Your task to perform on an android device: open sync settings in chrome Image 0: 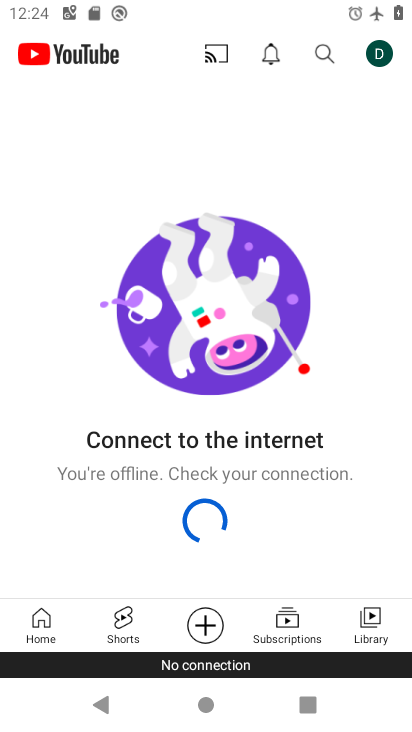
Step 0: press home button
Your task to perform on an android device: open sync settings in chrome Image 1: 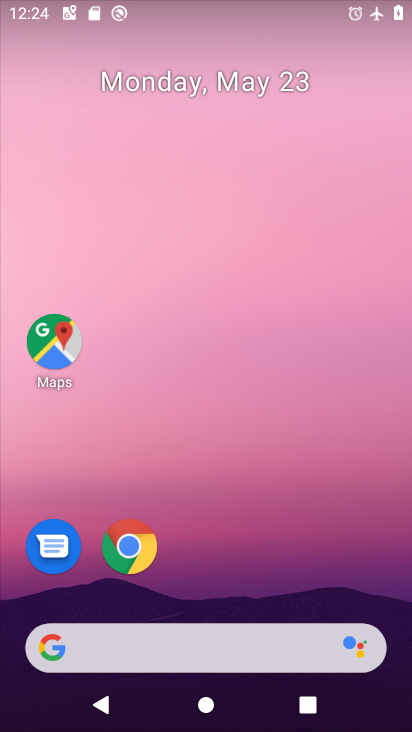
Step 1: drag from (256, 623) to (339, 158)
Your task to perform on an android device: open sync settings in chrome Image 2: 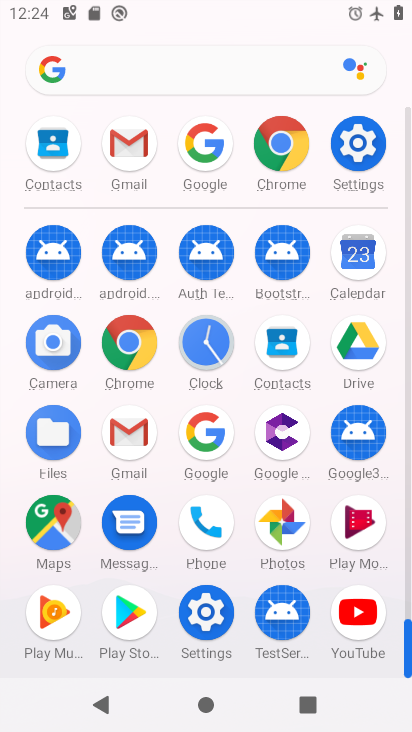
Step 2: click (283, 158)
Your task to perform on an android device: open sync settings in chrome Image 3: 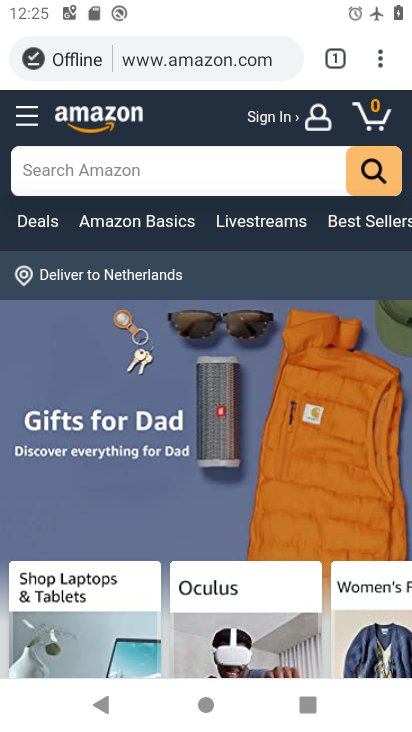
Step 3: click (386, 58)
Your task to perform on an android device: open sync settings in chrome Image 4: 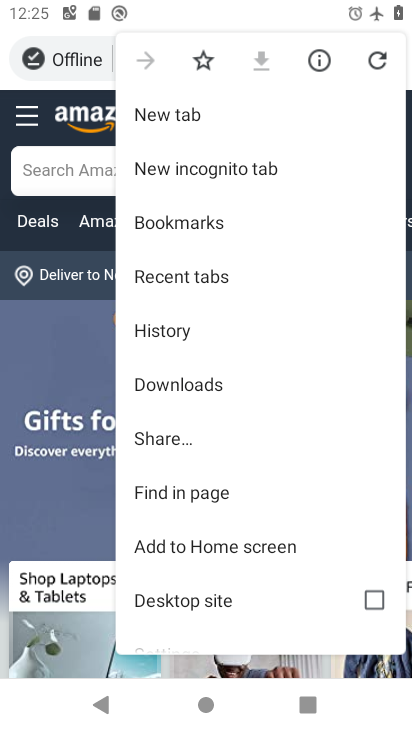
Step 4: drag from (209, 558) to (262, 179)
Your task to perform on an android device: open sync settings in chrome Image 5: 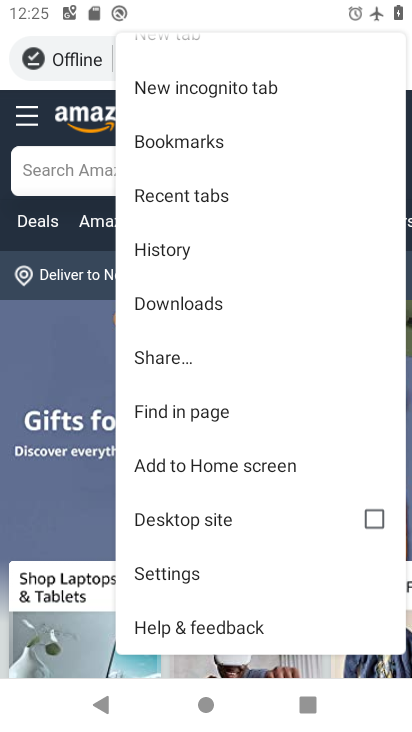
Step 5: click (203, 570)
Your task to perform on an android device: open sync settings in chrome Image 6: 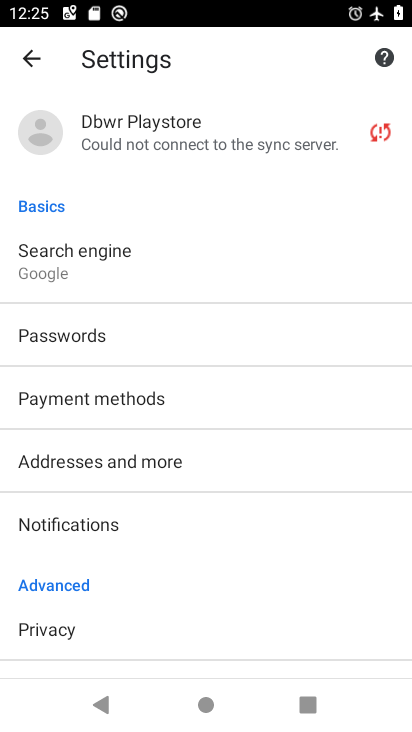
Step 6: drag from (190, 600) to (253, 344)
Your task to perform on an android device: open sync settings in chrome Image 7: 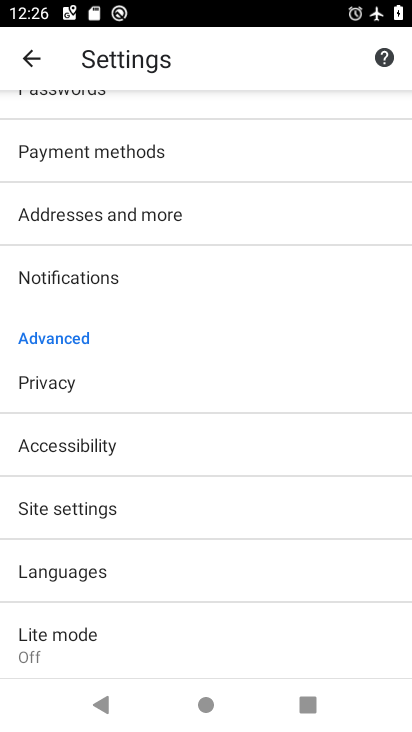
Step 7: drag from (281, 310) to (143, 701)
Your task to perform on an android device: open sync settings in chrome Image 8: 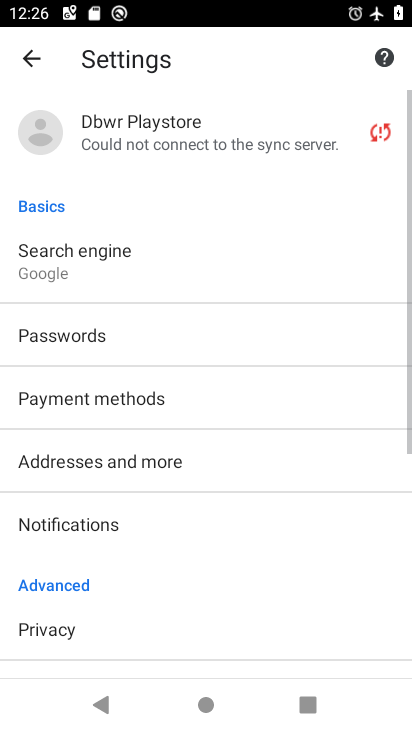
Step 8: click (204, 139)
Your task to perform on an android device: open sync settings in chrome Image 9: 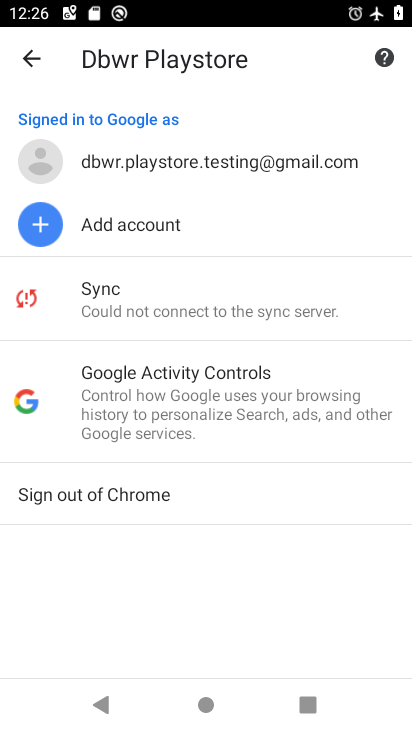
Step 9: click (202, 311)
Your task to perform on an android device: open sync settings in chrome Image 10: 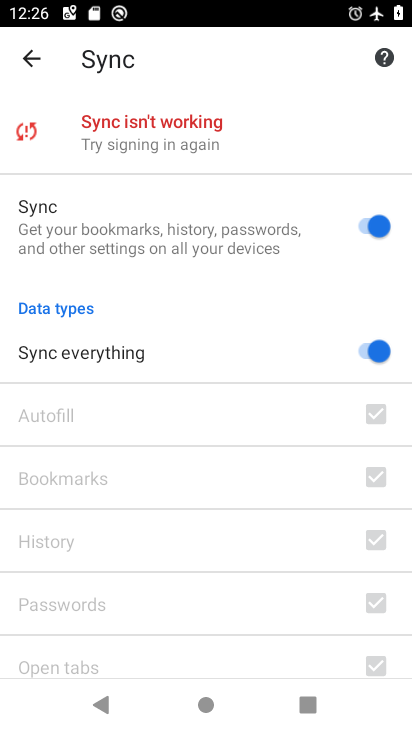
Step 10: task complete